Your task to perform on an android device: Go to display settings Image 0: 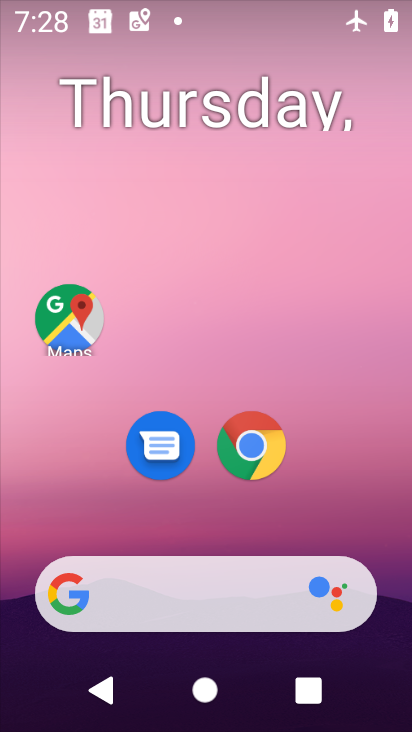
Step 0: drag from (384, 650) to (313, 0)
Your task to perform on an android device: Go to display settings Image 1: 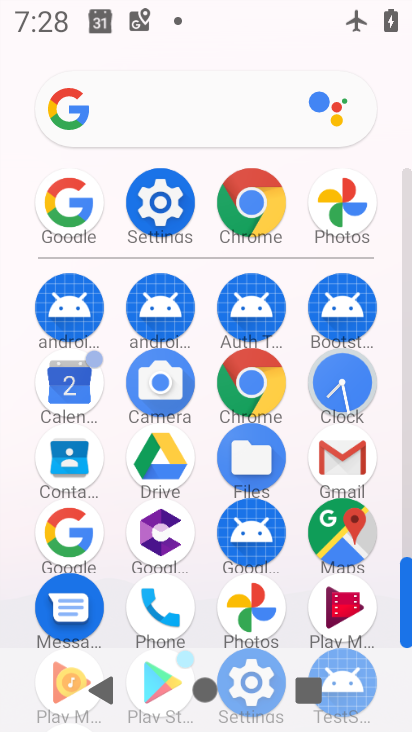
Step 1: click (184, 206)
Your task to perform on an android device: Go to display settings Image 2: 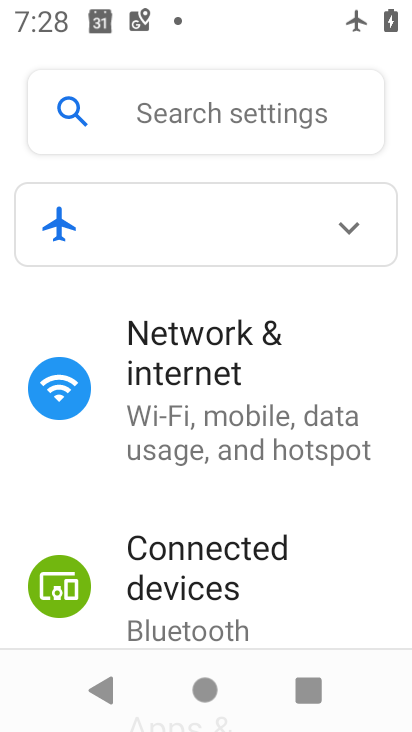
Step 2: click (226, 426)
Your task to perform on an android device: Go to display settings Image 3: 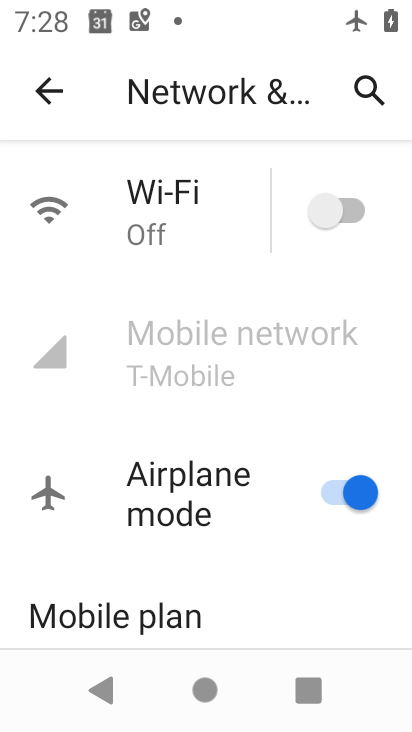
Step 3: task complete